Your task to perform on an android device: turn pop-ups on in chrome Image 0: 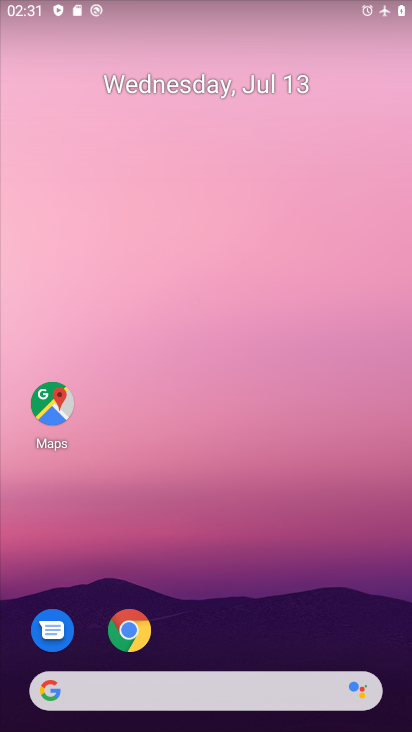
Step 0: click (136, 630)
Your task to perform on an android device: turn pop-ups on in chrome Image 1: 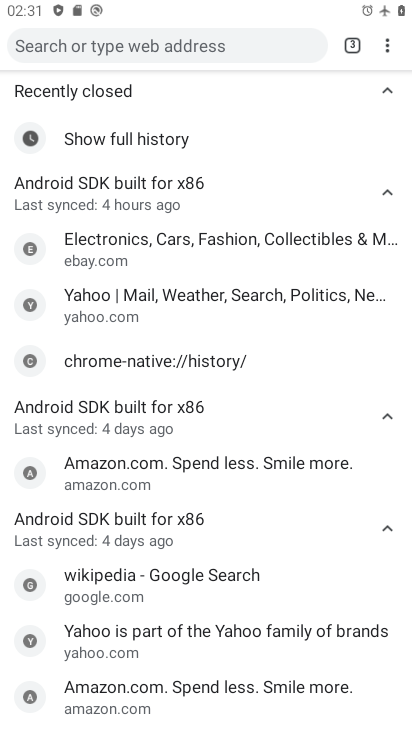
Step 1: click (391, 49)
Your task to perform on an android device: turn pop-ups on in chrome Image 2: 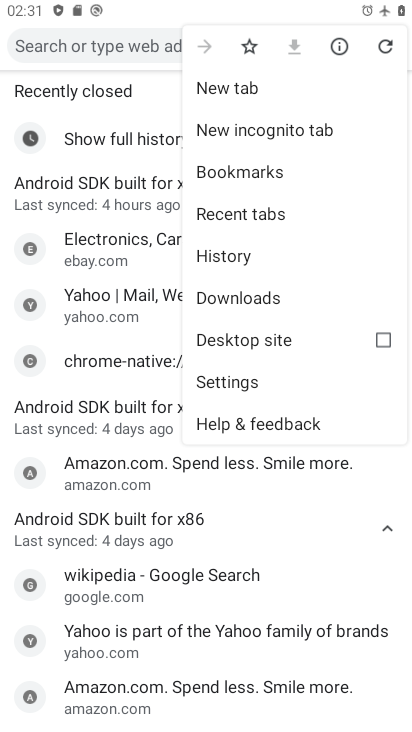
Step 2: click (252, 377)
Your task to perform on an android device: turn pop-ups on in chrome Image 3: 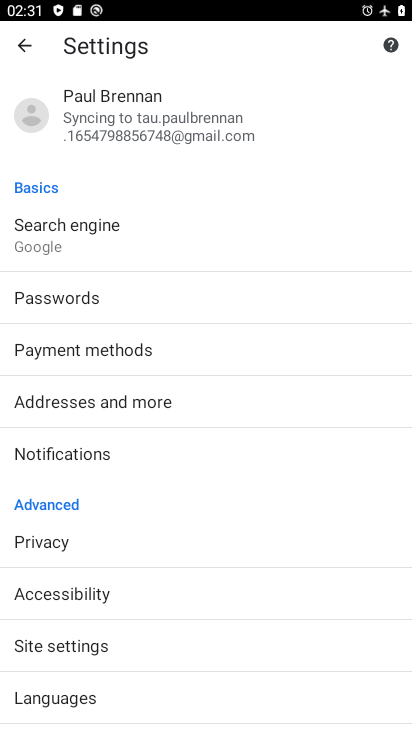
Step 3: click (121, 655)
Your task to perform on an android device: turn pop-ups on in chrome Image 4: 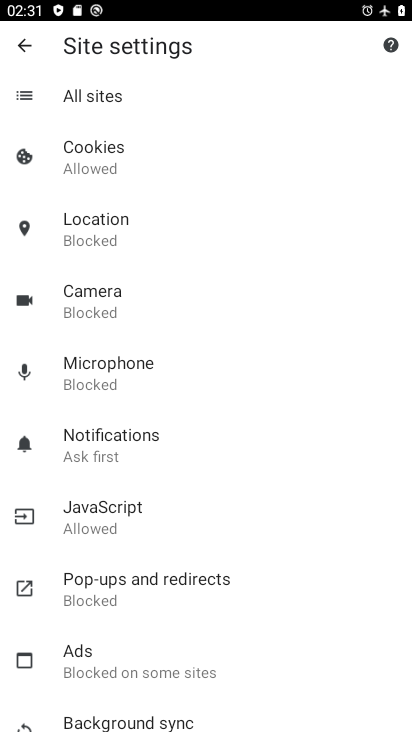
Step 4: click (166, 577)
Your task to perform on an android device: turn pop-ups on in chrome Image 5: 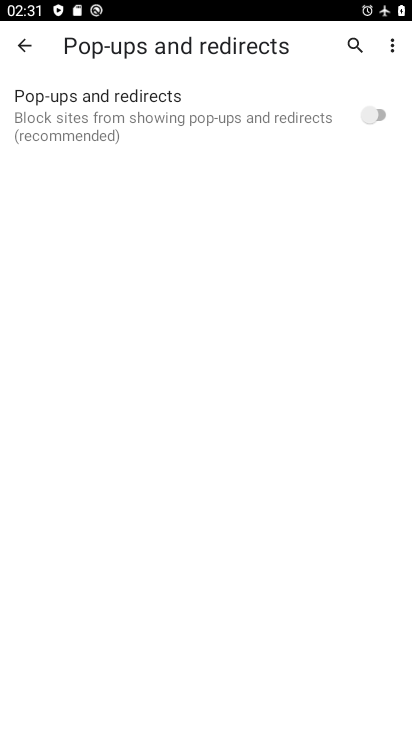
Step 5: click (387, 110)
Your task to perform on an android device: turn pop-ups on in chrome Image 6: 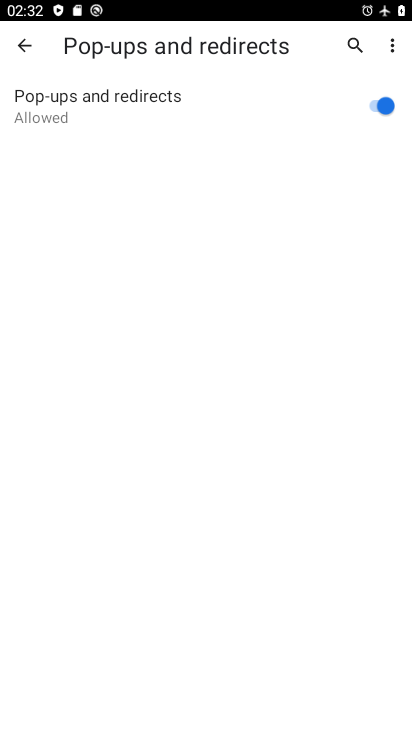
Step 6: task complete